Your task to perform on an android device: delete the emails in spam in the gmail app Image 0: 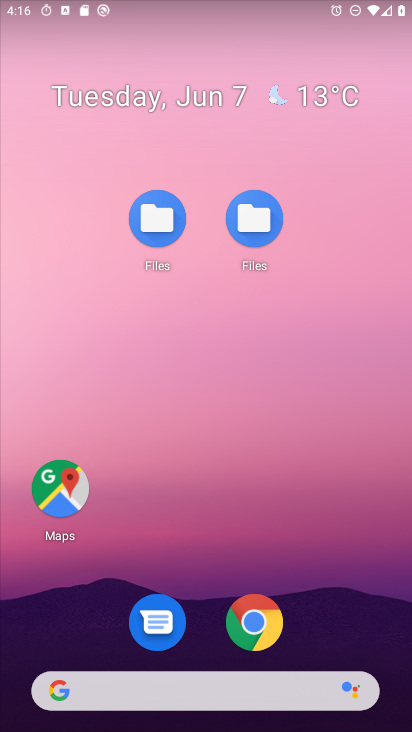
Step 0: drag from (343, 627) to (344, 1)
Your task to perform on an android device: delete the emails in spam in the gmail app Image 1: 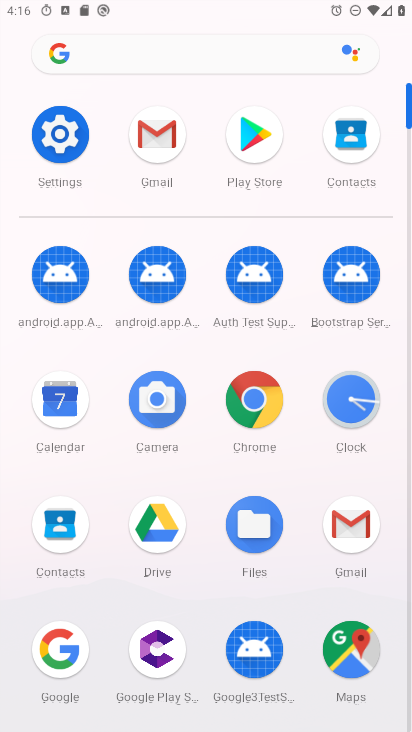
Step 1: click (148, 141)
Your task to perform on an android device: delete the emails in spam in the gmail app Image 2: 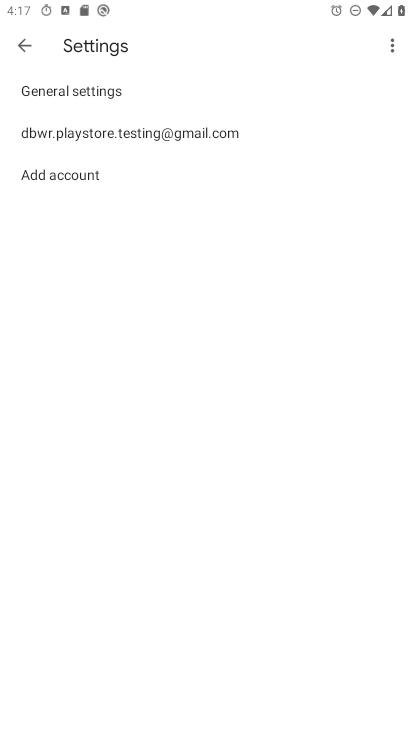
Step 2: click (32, 47)
Your task to perform on an android device: delete the emails in spam in the gmail app Image 3: 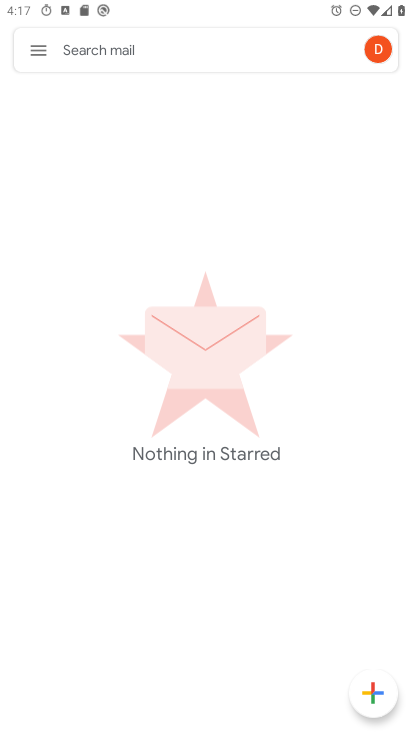
Step 3: click (46, 55)
Your task to perform on an android device: delete the emails in spam in the gmail app Image 4: 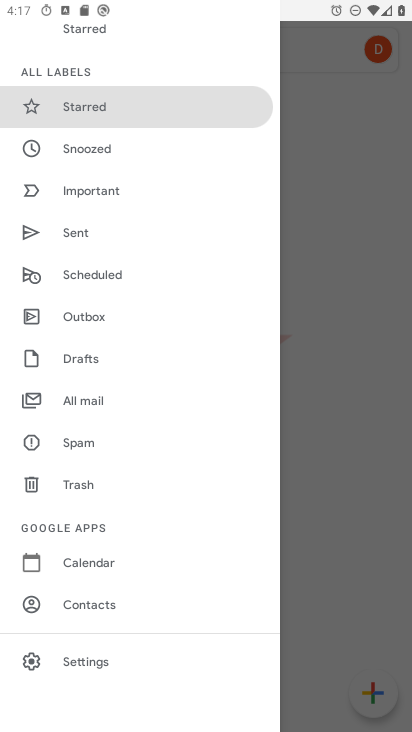
Step 4: click (82, 448)
Your task to perform on an android device: delete the emails in spam in the gmail app Image 5: 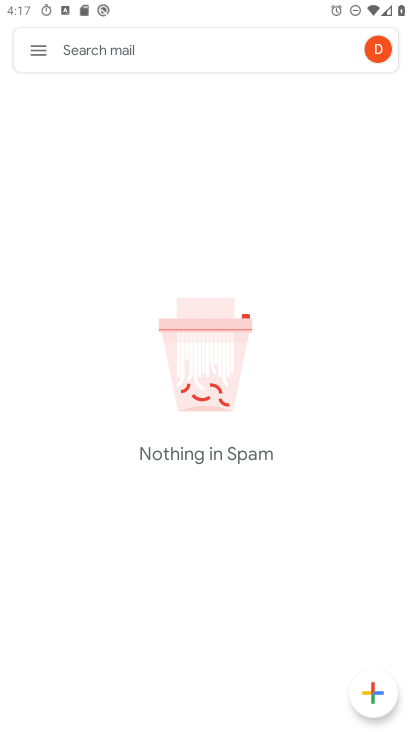
Step 5: click (31, 49)
Your task to perform on an android device: delete the emails in spam in the gmail app Image 6: 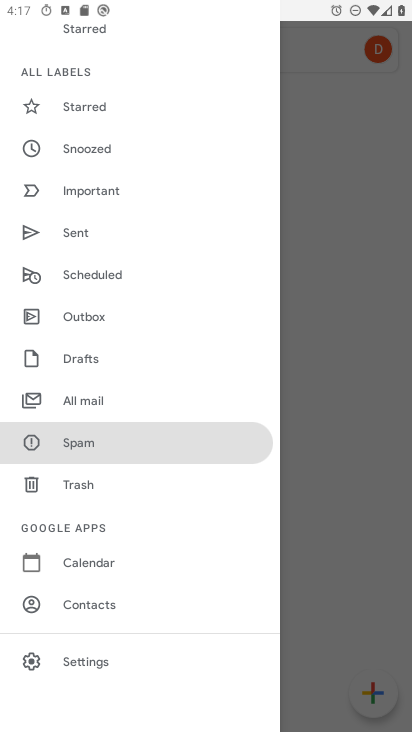
Step 6: click (102, 407)
Your task to perform on an android device: delete the emails in spam in the gmail app Image 7: 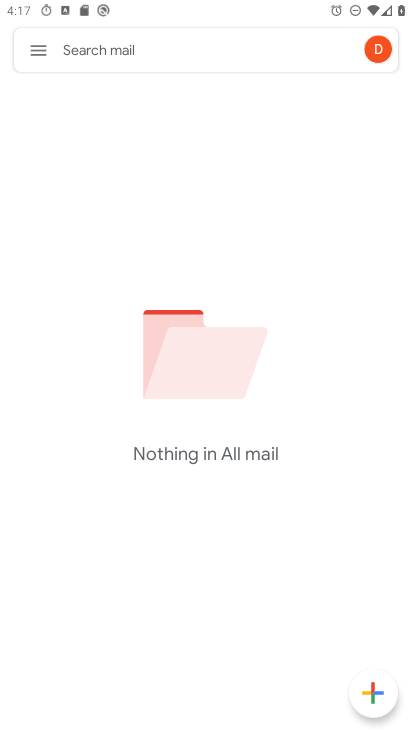
Step 7: task complete